Your task to perform on an android device: Open privacy settings Image 0: 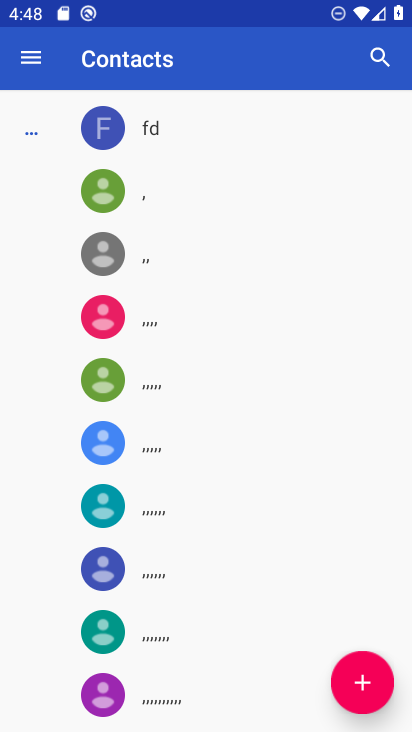
Step 0: press home button
Your task to perform on an android device: Open privacy settings Image 1: 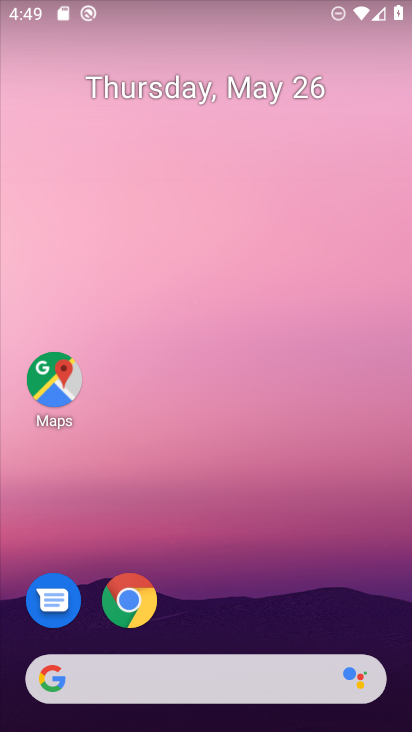
Step 1: click (140, 611)
Your task to perform on an android device: Open privacy settings Image 2: 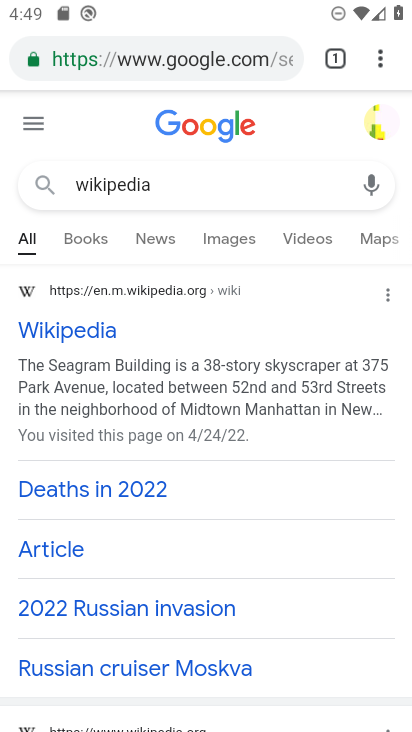
Step 2: press home button
Your task to perform on an android device: Open privacy settings Image 3: 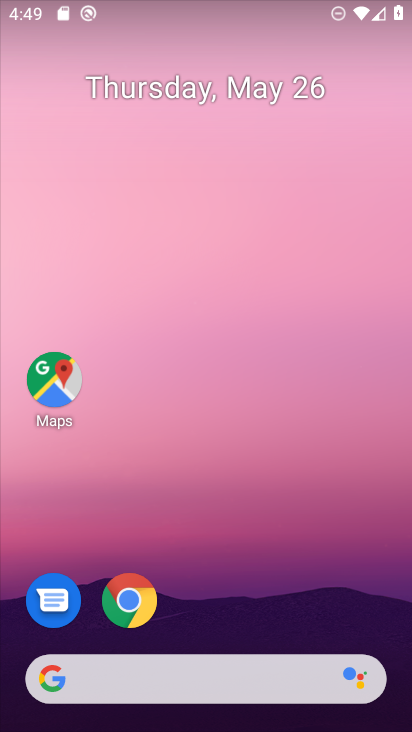
Step 3: drag from (211, 642) to (220, 178)
Your task to perform on an android device: Open privacy settings Image 4: 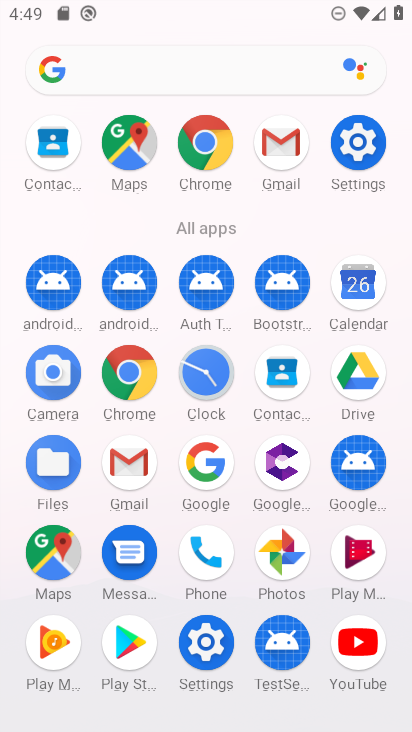
Step 4: click (372, 148)
Your task to perform on an android device: Open privacy settings Image 5: 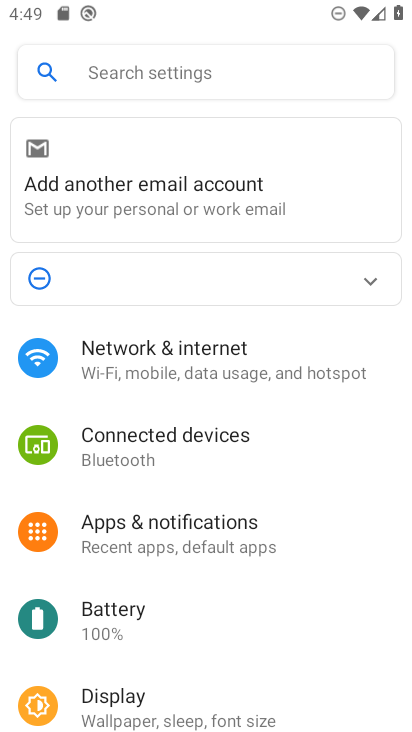
Step 5: drag from (207, 613) to (282, 175)
Your task to perform on an android device: Open privacy settings Image 6: 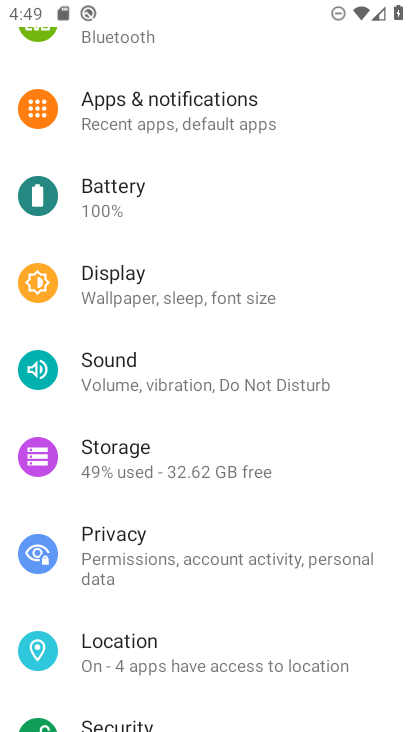
Step 6: click (190, 559)
Your task to perform on an android device: Open privacy settings Image 7: 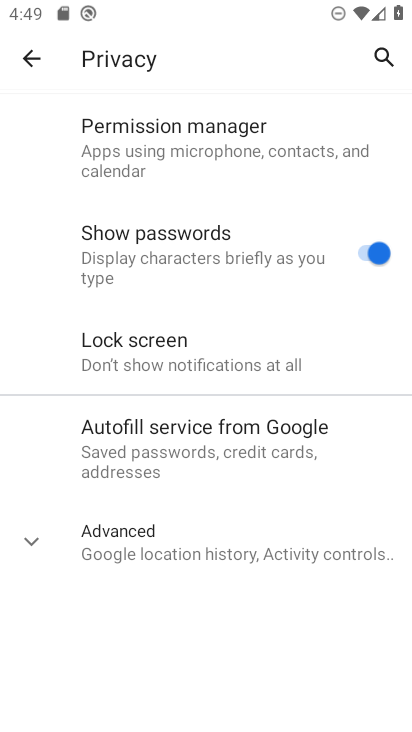
Step 7: task complete